Your task to perform on an android device: Go to Amazon Image 0: 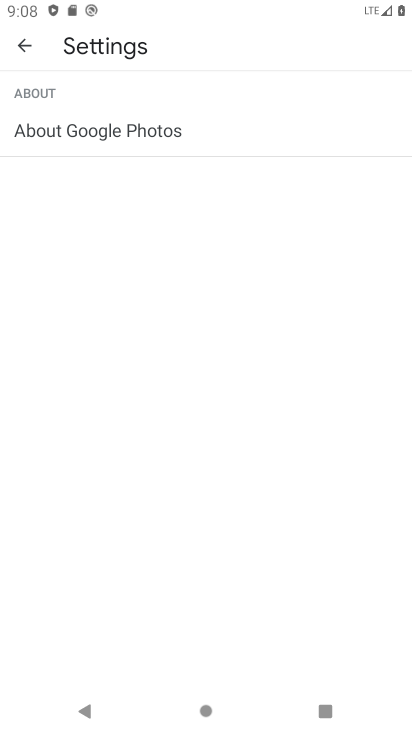
Step 0: press home button
Your task to perform on an android device: Go to Amazon Image 1: 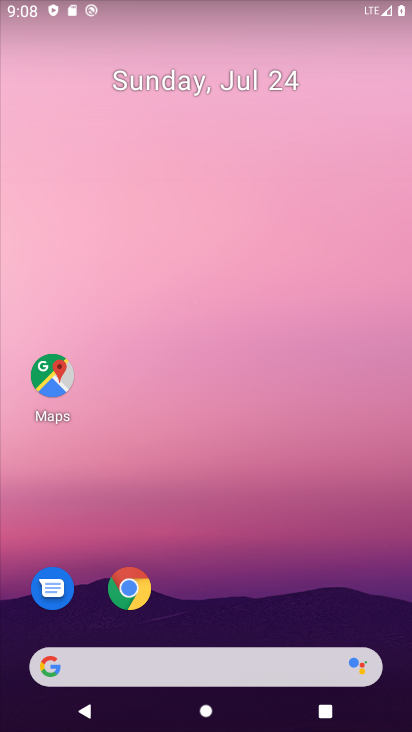
Step 1: click (139, 585)
Your task to perform on an android device: Go to Amazon Image 2: 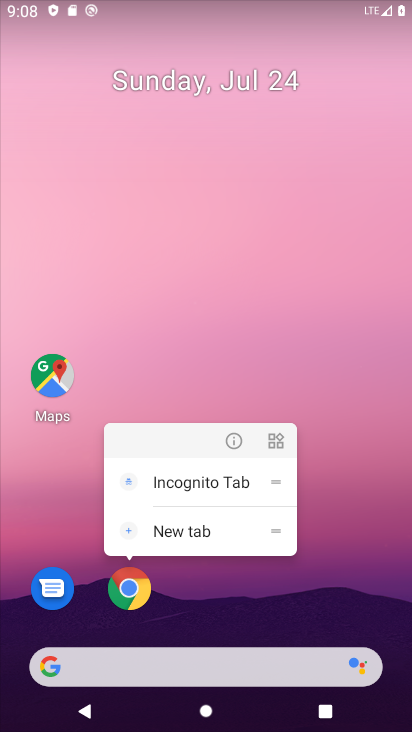
Step 2: click (143, 581)
Your task to perform on an android device: Go to Amazon Image 3: 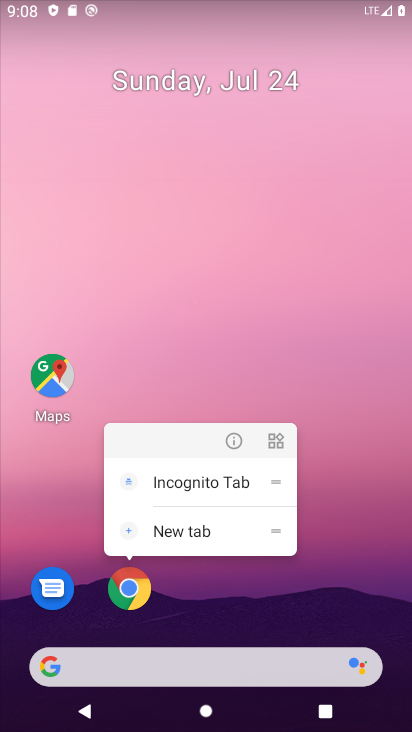
Step 3: click (143, 581)
Your task to perform on an android device: Go to Amazon Image 4: 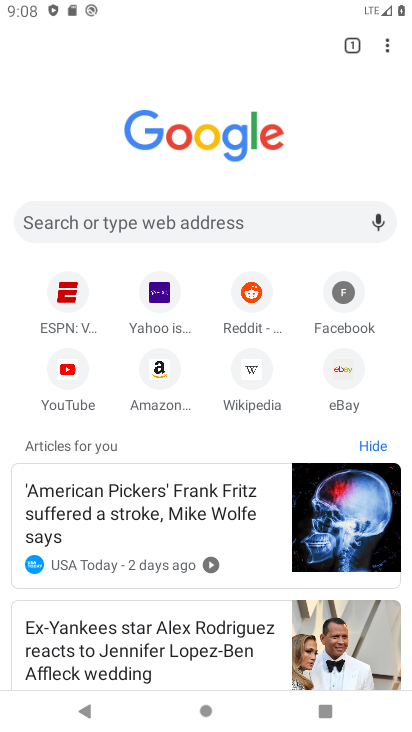
Step 4: click (160, 359)
Your task to perform on an android device: Go to Amazon Image 5: 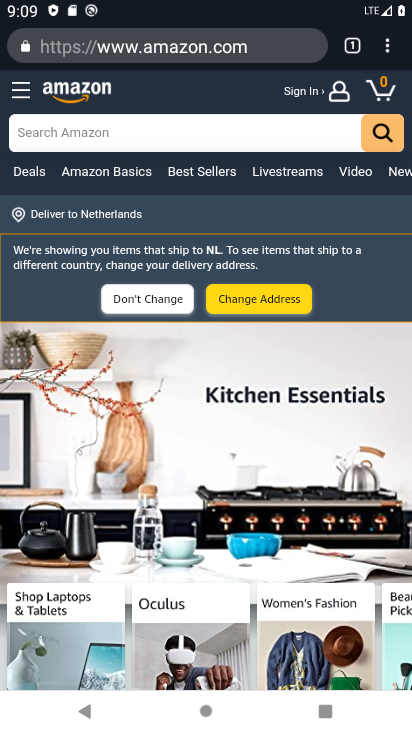
Step 5: task complete